Your task to perform on an android device: turn off wifi Image 0: 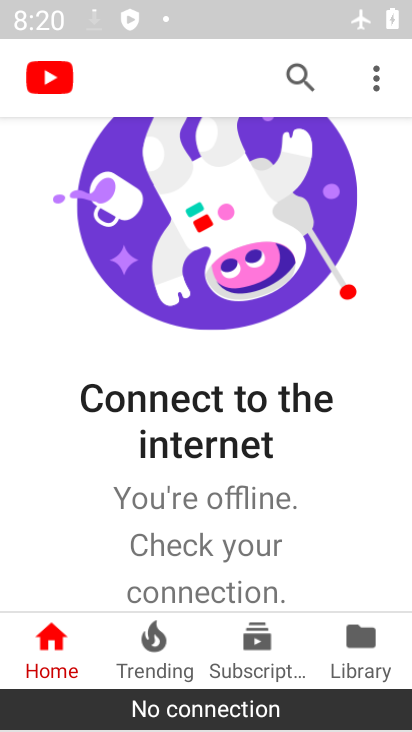
Step 0: press home button
Your task to perform on an android device: turn off wifi Image 1: 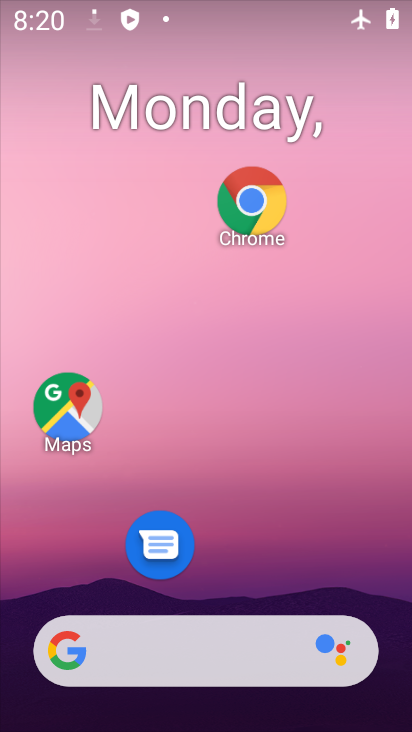
Step 1: drag from (229, 572) to (216, 385)
Your task to perform on an android device: turn off wifi Image 2: 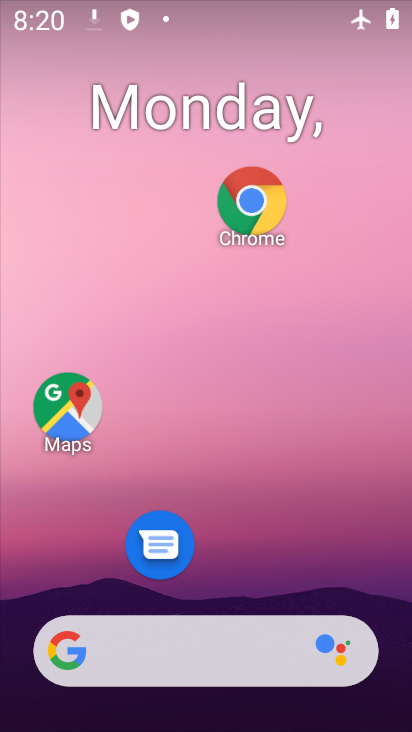
Step 2: drag from (273, 452) to (273, 33)
Your task to perform on an android device: turn off wifi Image 3: 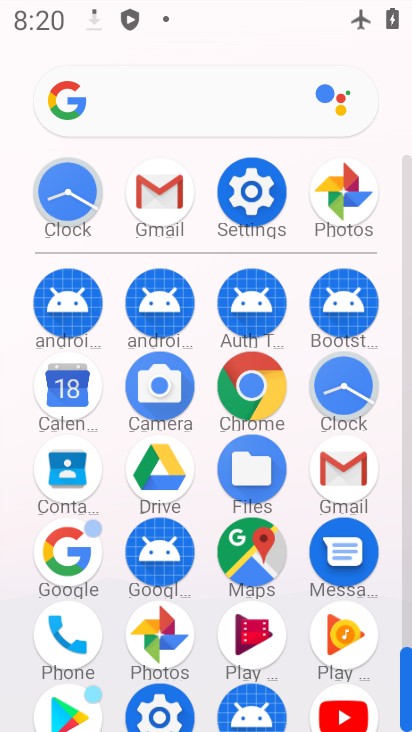
Step 3: click (256, 174)
Your task to perform on an android device: turn off wifi Image 4: 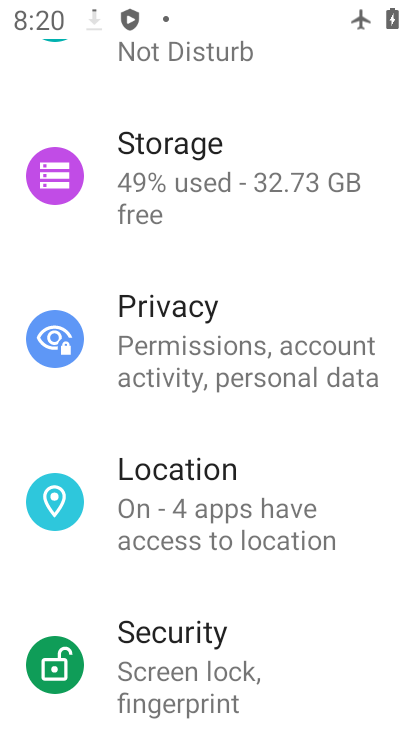
Step 4: drag from (228, 273) to (230, 554)
Your task to perform on an android device: turn off wifi Image 5: 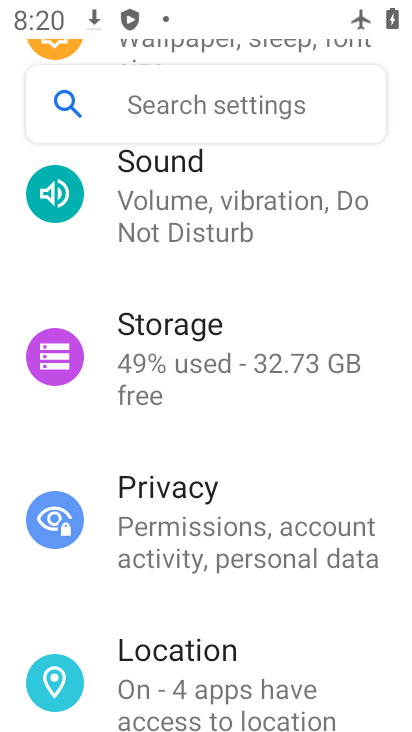
Step 5: drag from (275, 185) to (277, 594)
Your task to perform on an android device: turn off wifi Image 6: 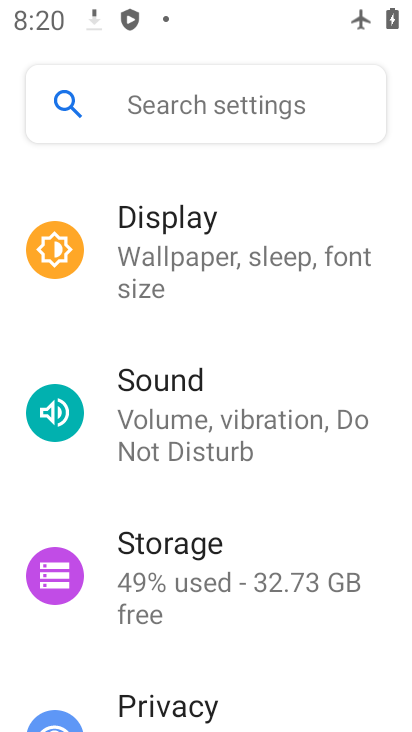
Step 6: drag from (290, 223) to (295, 605)
Your task to perform on an android device: turn off wifi Image 7: 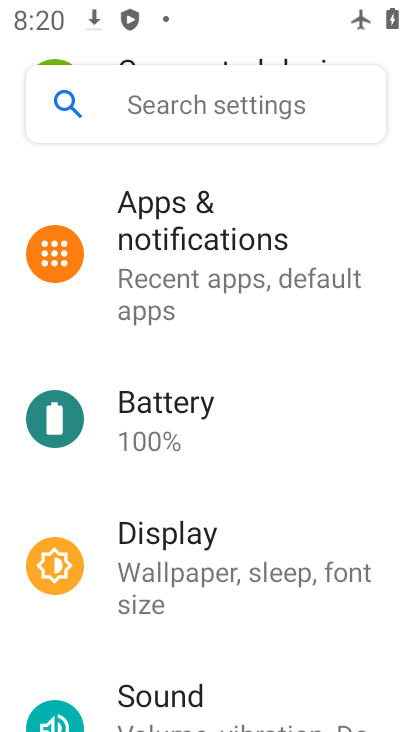
Step 7: click (229, 536)
Your task to perform on an android device: turn off wifi Image 8: 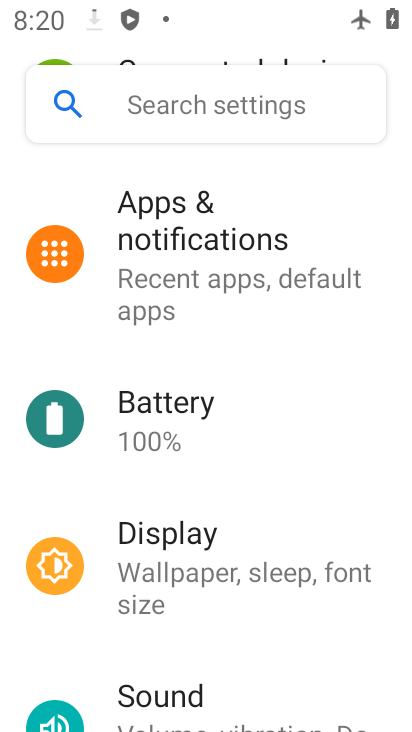
Step 8: click (209, 619)
Your task to perform on an android device: turn off wifi Image 9: 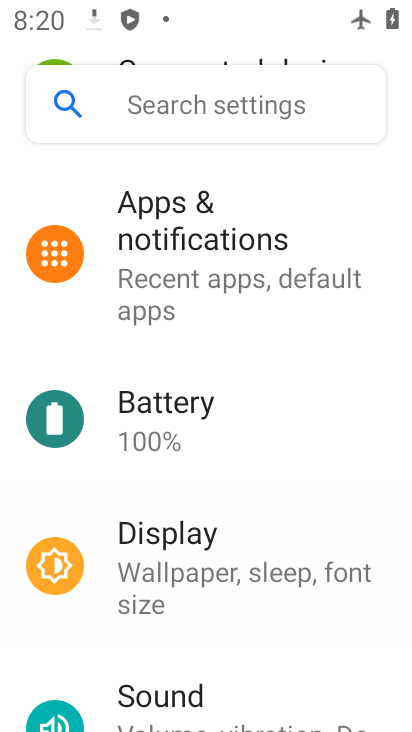
Step 9: drag from (222, 335) to (249, 605)
Your task to perform on an android device: turn off wifi Image 10: 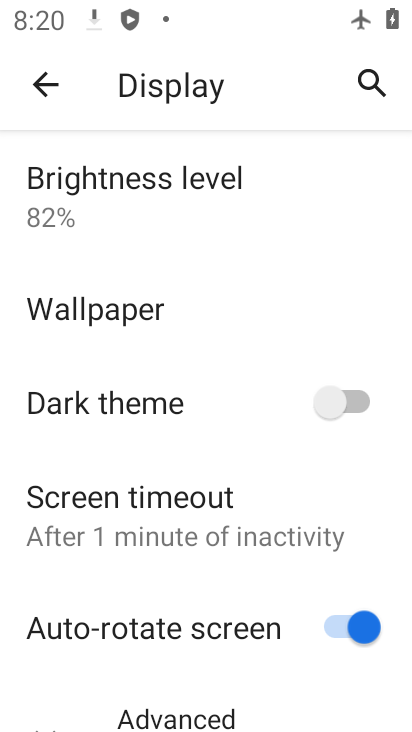
Step 10: click (45, 84)
Your task to perform on an android device: turn off wifi Image 11: 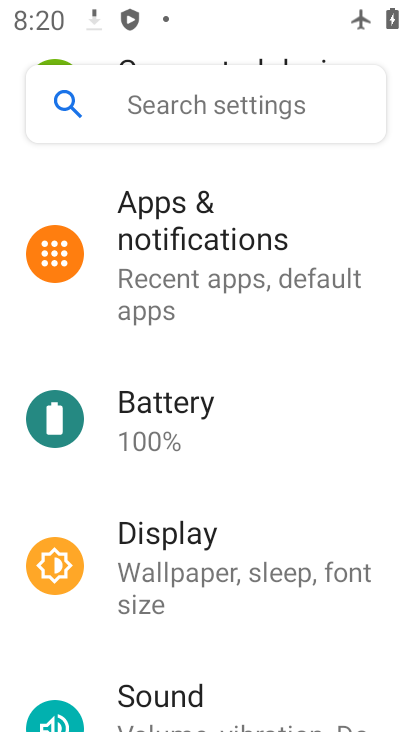
Step 11: drag from (268, 203) to (270, 584)
Your task to perform on an android device: turn off wifi Image 12: 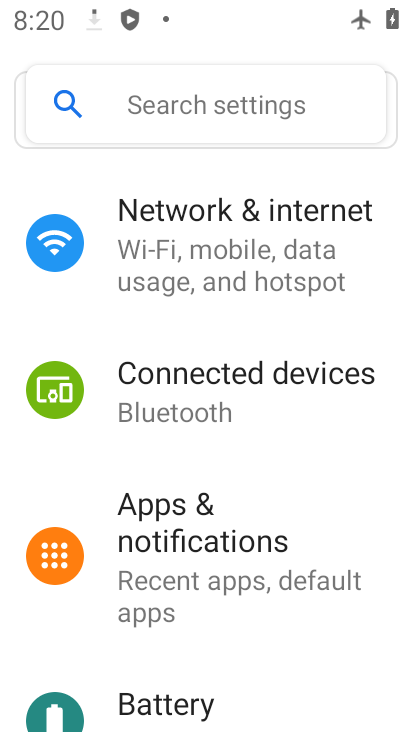
Step 12: click (288, 220)
Your task to perform on an android device: turn off wifi Image 13: 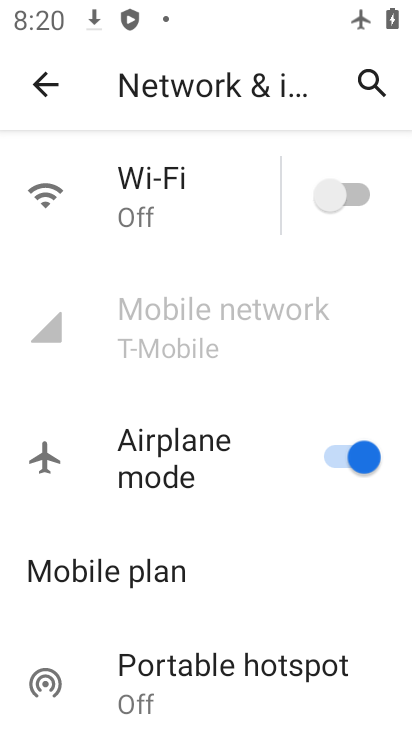
Step 13: task complete